Your task to perform on an android device: uninstall "Instagram" Image 0: 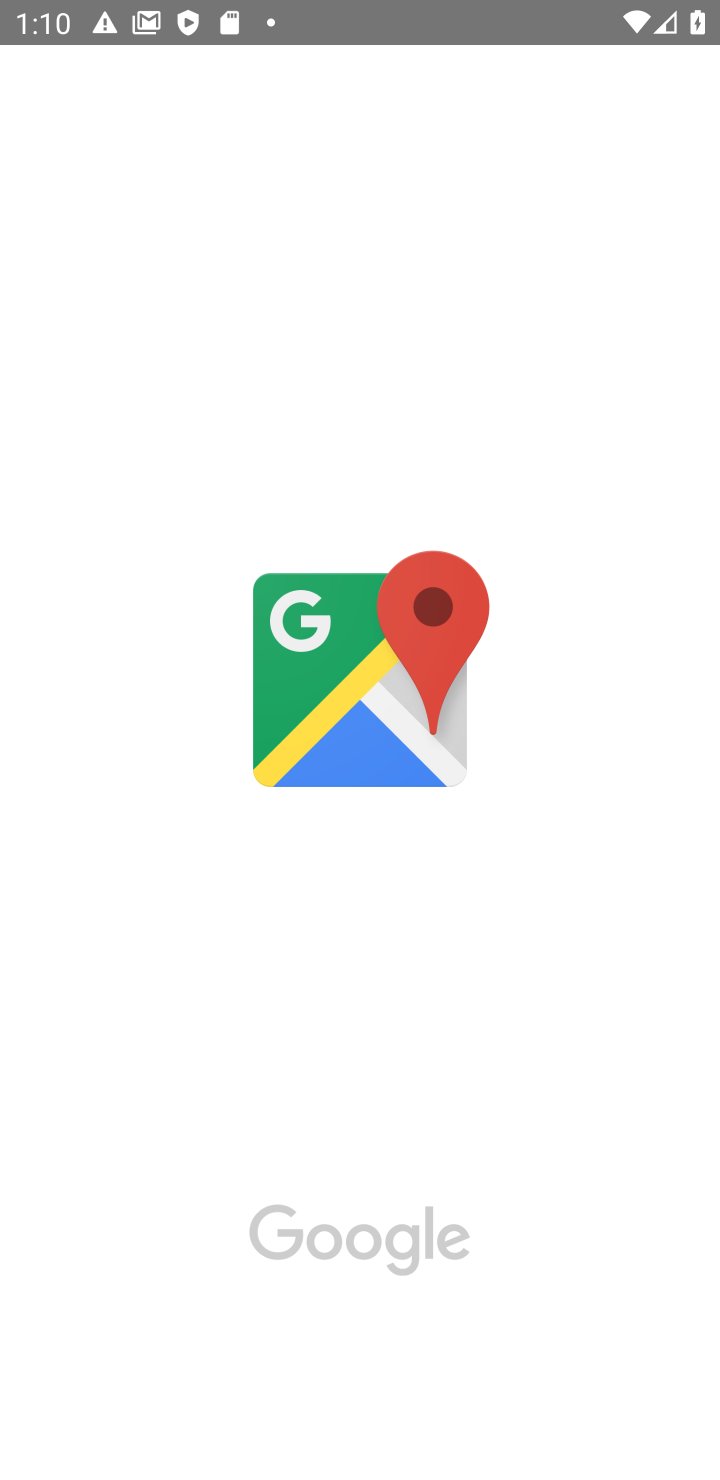
Step 0: press back button
Your task to perform on an android device: uninstall "Instagram" Image 1: 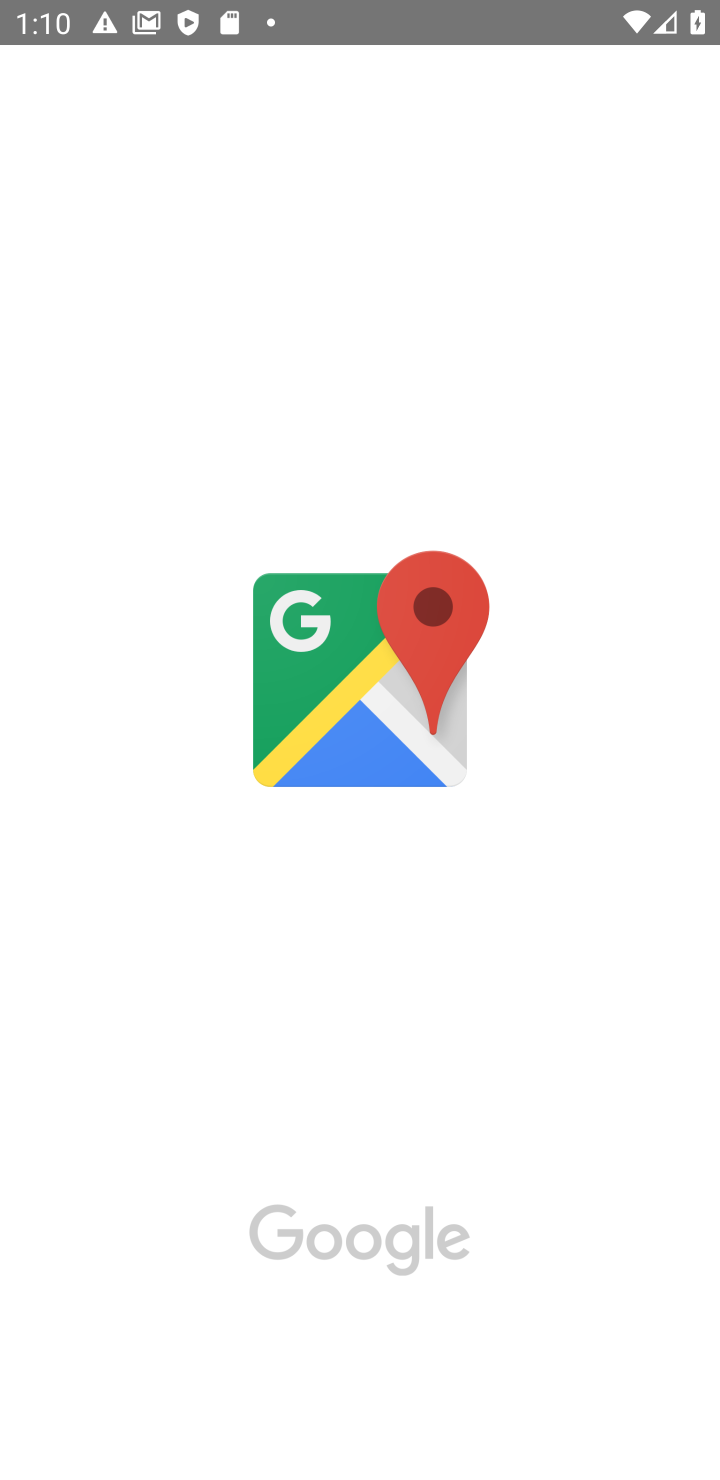
Step 1: press back button
Your task to perform on an android device: uninstall "Instagram" Image 2: 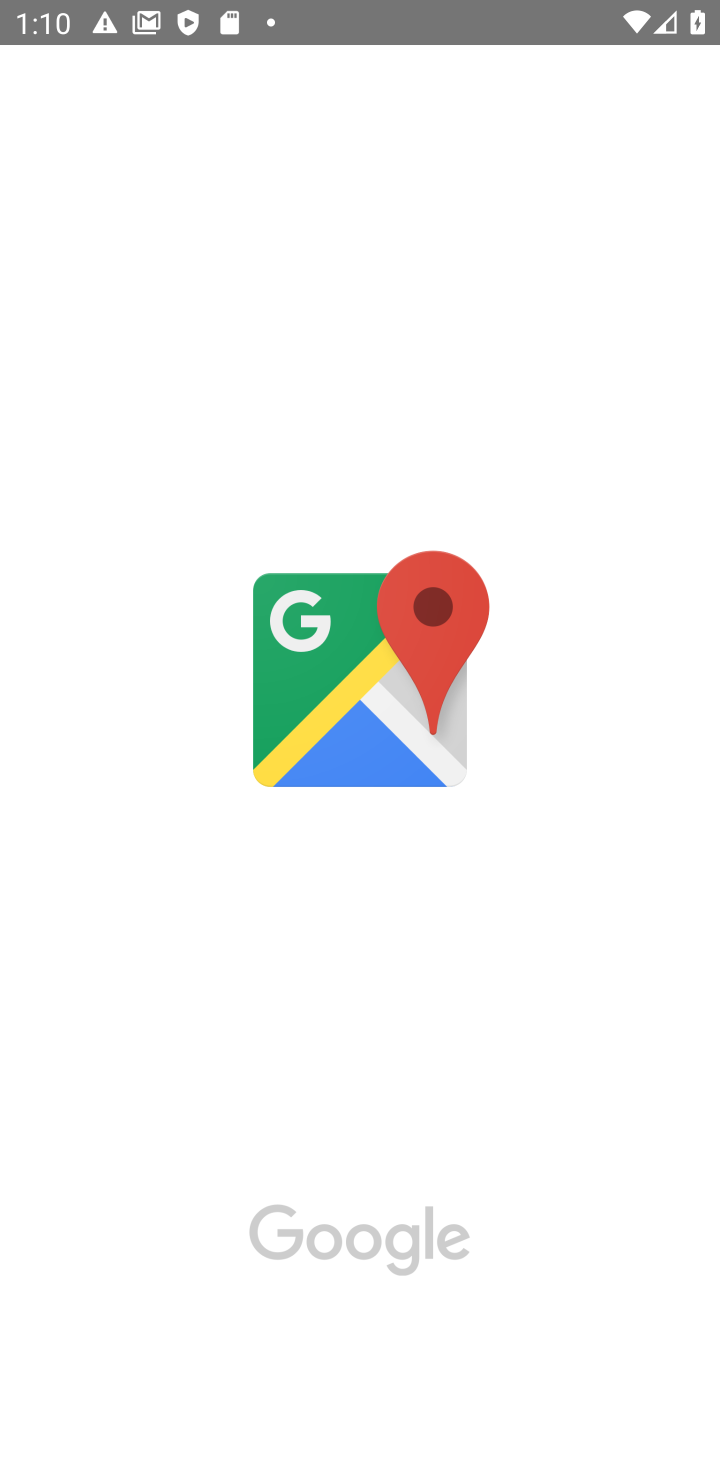
Step 2: press home button
Your task to perform on an android device: uninstall "Instagram" Image 3: 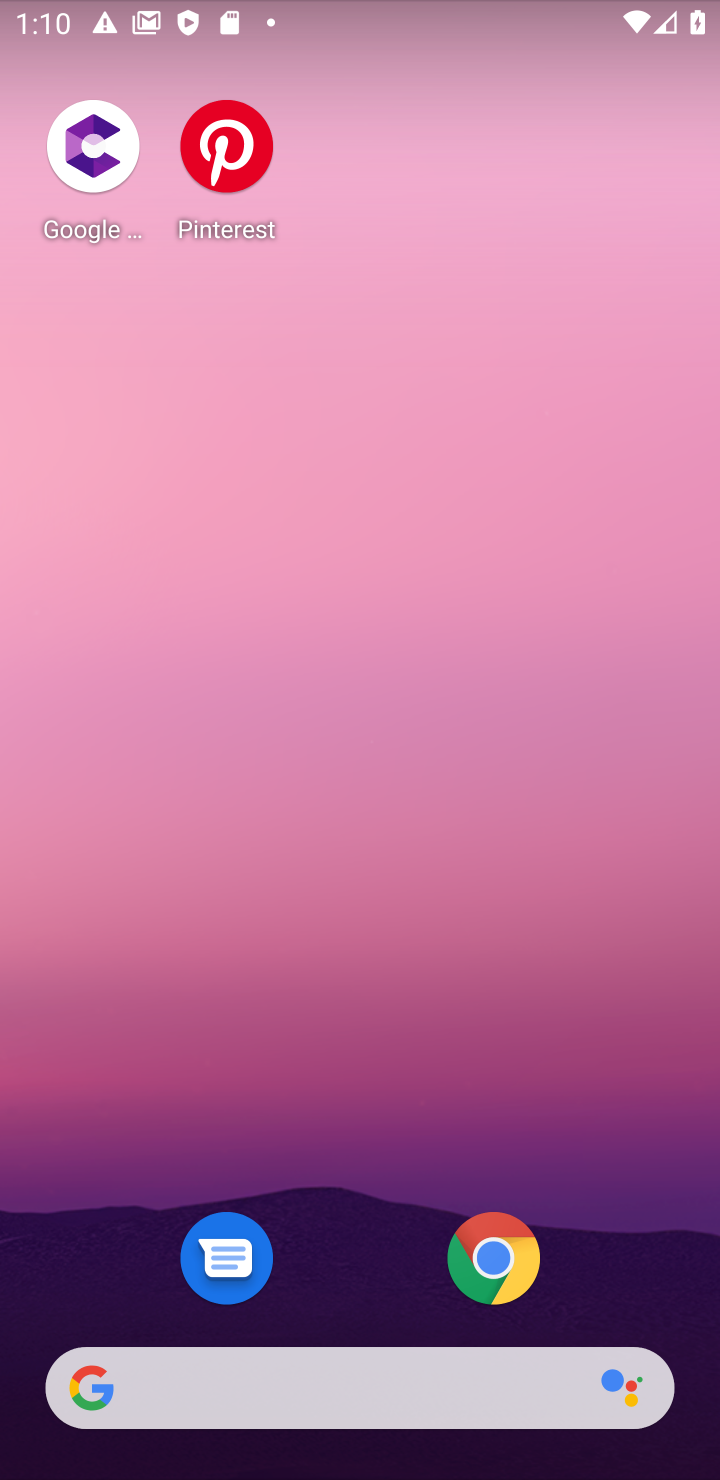
Step 3: drag from (148, 1099) to (302, 61)
Your task to perform on an android device: uninstall "Instagram" Image 4: 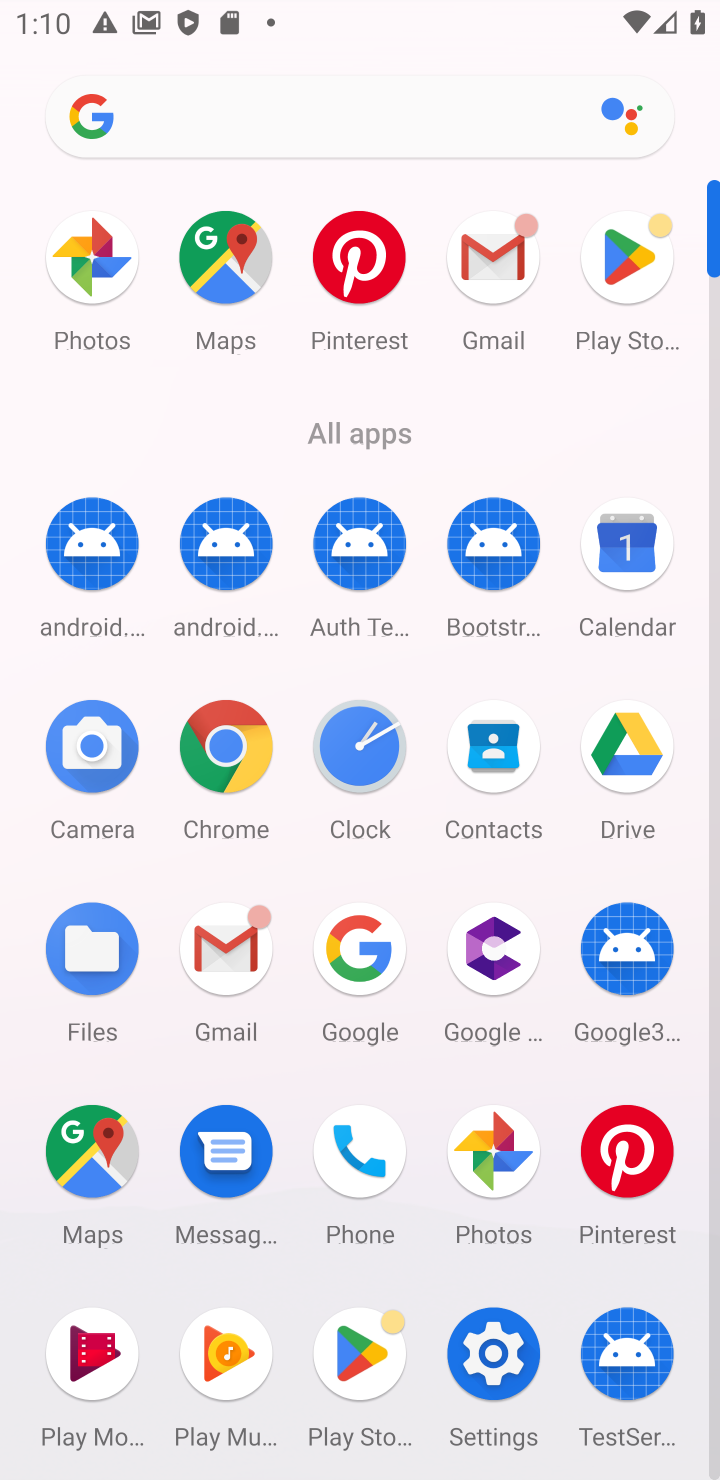
Step 4: click (642, 241)
Your task to perform on an android device: uninstall "Instagram" Image 5: 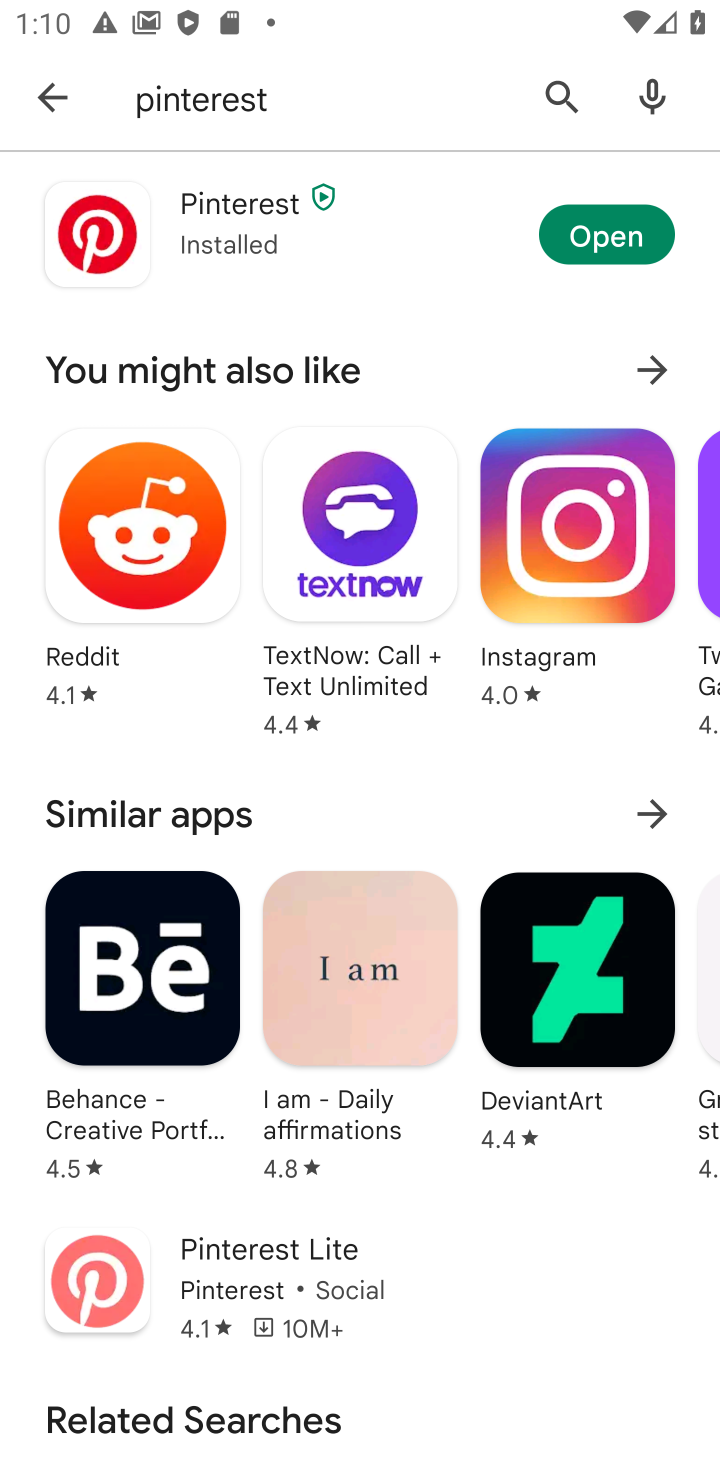
Step 5: click (575, 517)
Your task to perform on an android device: uninstall "Instagram" Image 6: 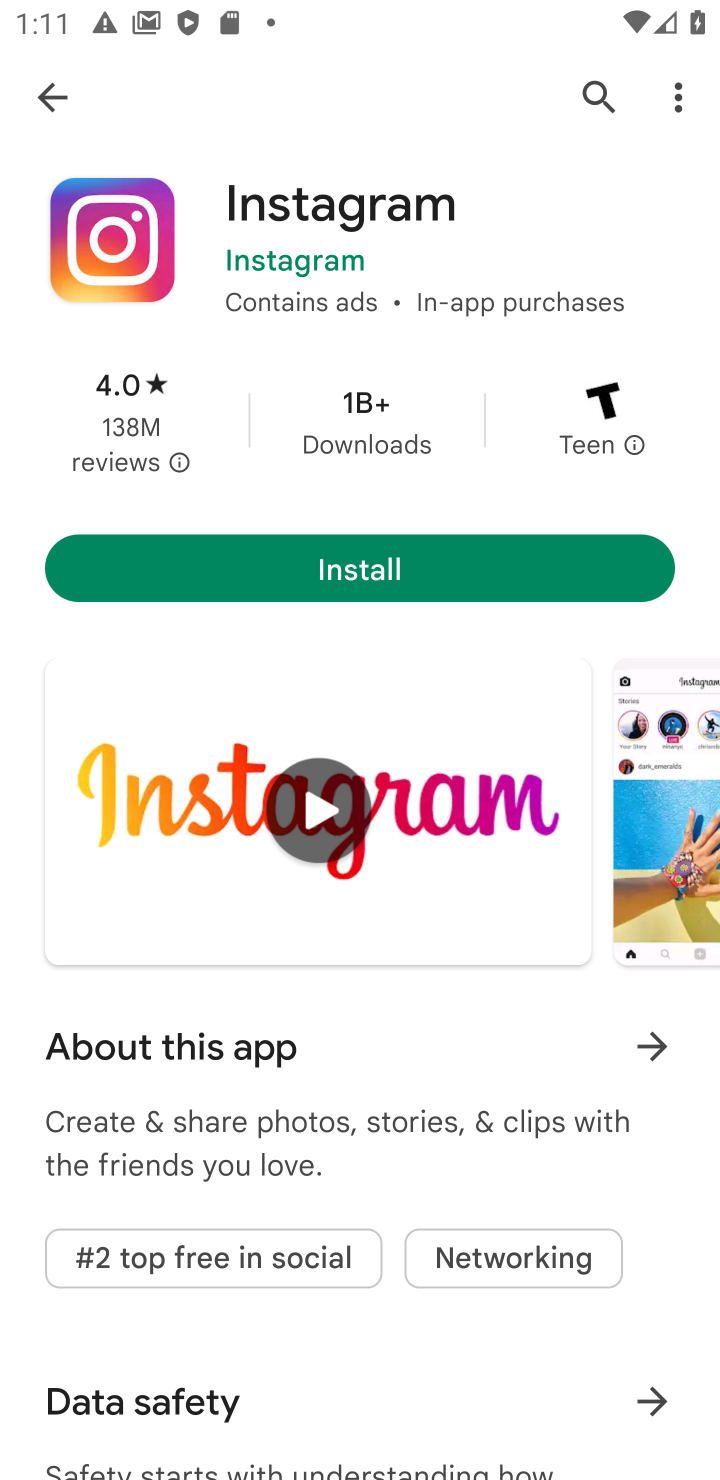
Step 6: task complete